Your task to perform on an android device: Open CNN.com Image 0: 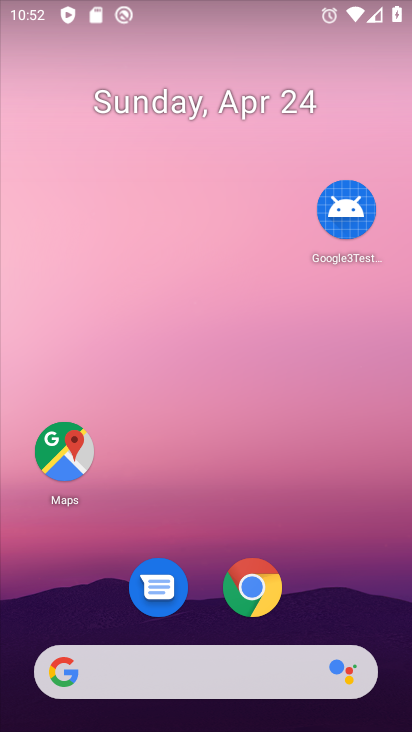
Step 0: drag from (343, 533) to (242, 51)
Your task to perform on an android device: Open CNN.com Image 1: 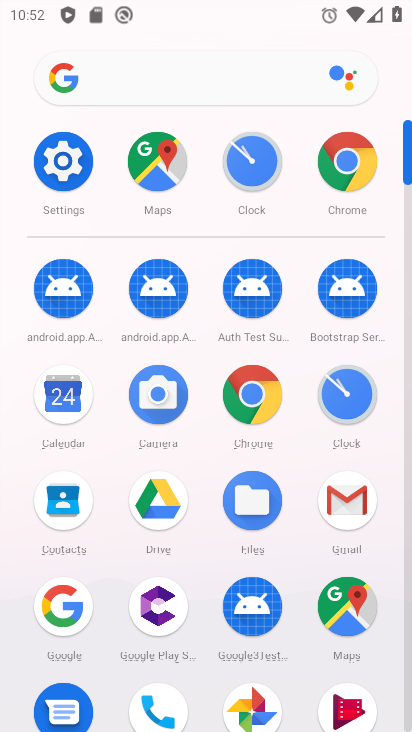
Step 1: click (234, 402)
Your task to perform on an android device: Open CNN.com Image 2: 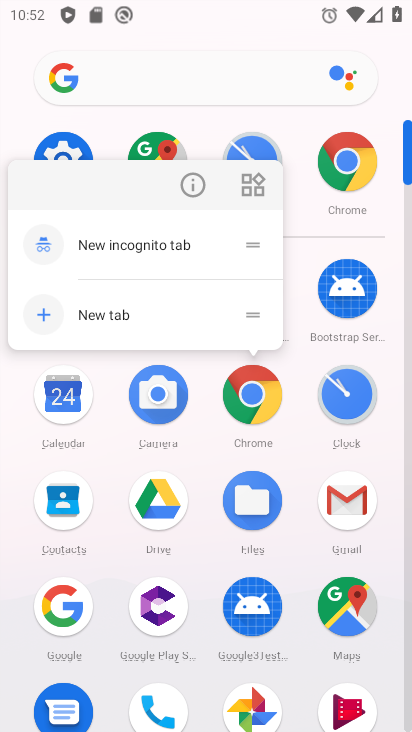
Step 2: click (243, 406)
Your task to perform on an android device: Open CNN.com Image 3: 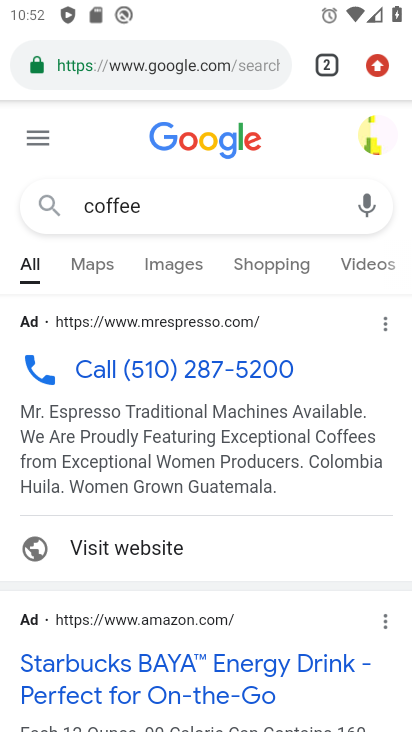
Step 3: click (139, 204)
Your task to perform on an android device: Open CNN.com Image 4: 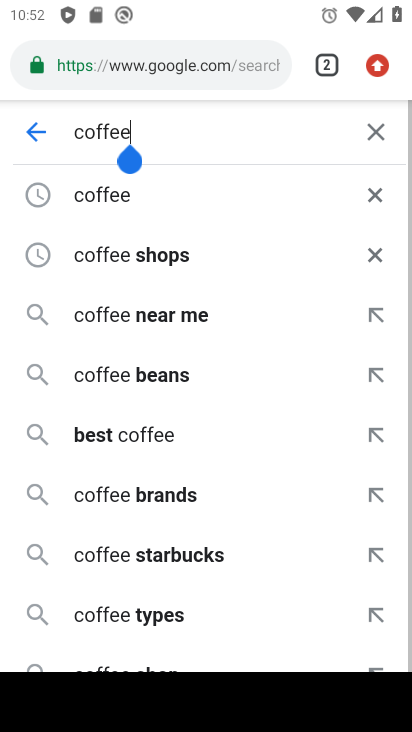
Step 4: click (171, 56)
Your task to perform on an android device: Open CNN.com Image 5: 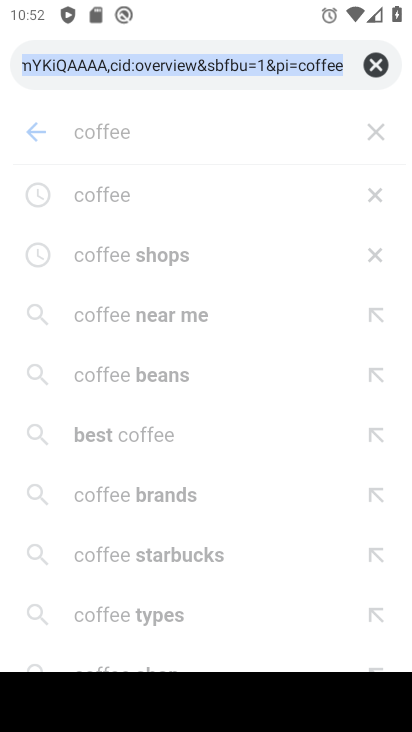
Step 5: click (377, 62)
Your task to perform on an android device: Open CNN.com Image 6: 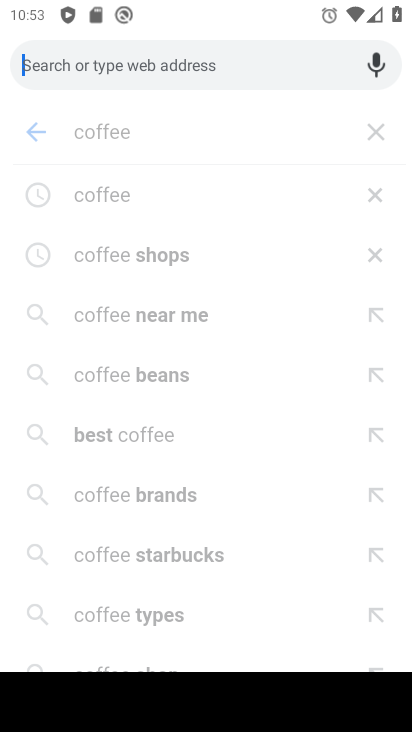
Step 6: type "cnn.com"
Your task to perform on an android device: Open CNN.com Image 7: 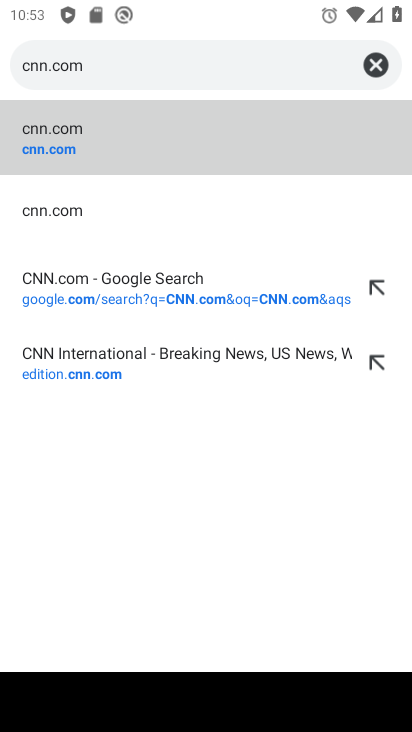
Step 7: click (49, 141)
Your task to perform on an android device: Open CNN.com Image 8: 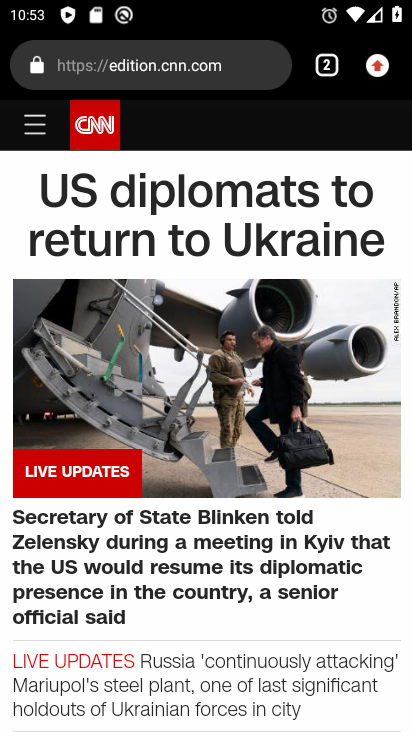
Step 8: task complete